Your task to perform on an android device: show emergency info Image 0: 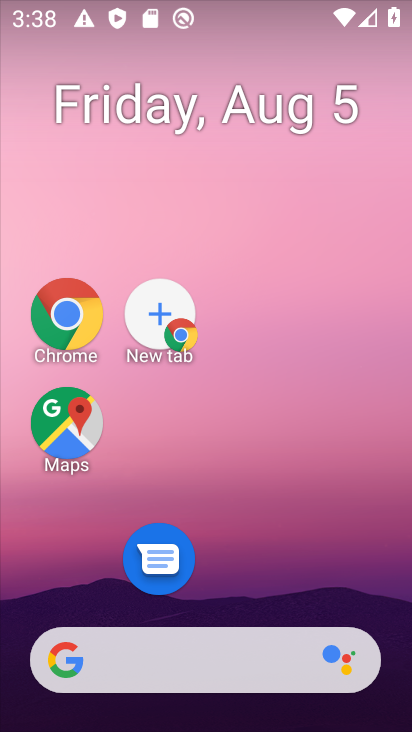
Step 0: drag from (268, 574) to (206, 117)
Your task to perform on an android device: show emergency info Image 1: 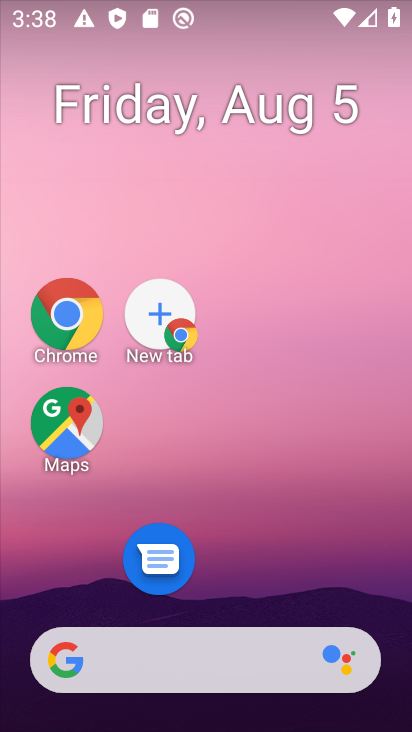
Step 1: drag from (259, 451) to (273, 204)
Your task to perform on an android device: show emergency info Image 2: 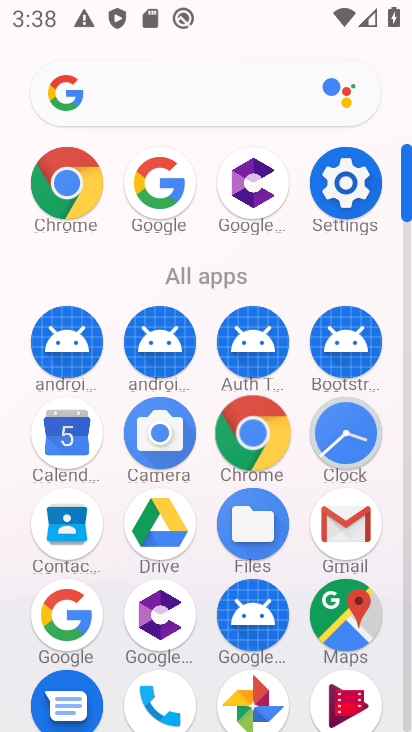
Step 2: drag from (261, 466) to (210, 96)
Your task to perform on an android device: show emergency info Image 3: 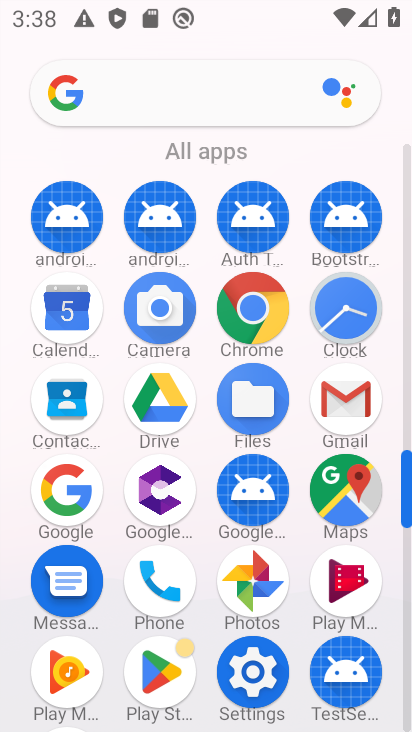
Step 3: click (247, 663)
Your task to perform on an android device: show emergency info Image 4: 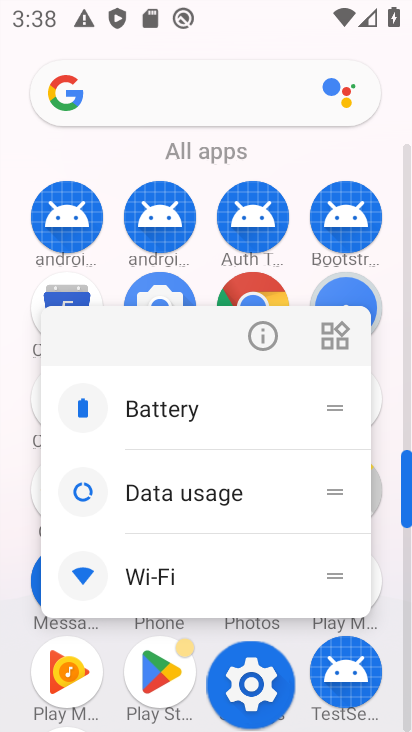
Step 4: click (246, 680)
Your task to perform on an android device: show emergency info Image 5: 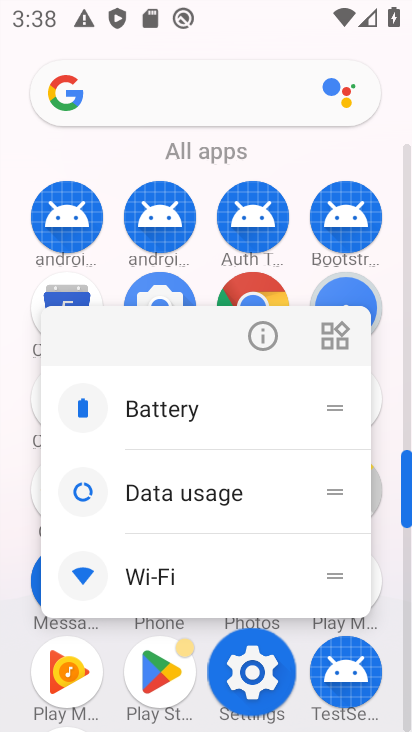
Step 5: click (248, 684)
Your task to perform on an android device: show emergency info Image 6: 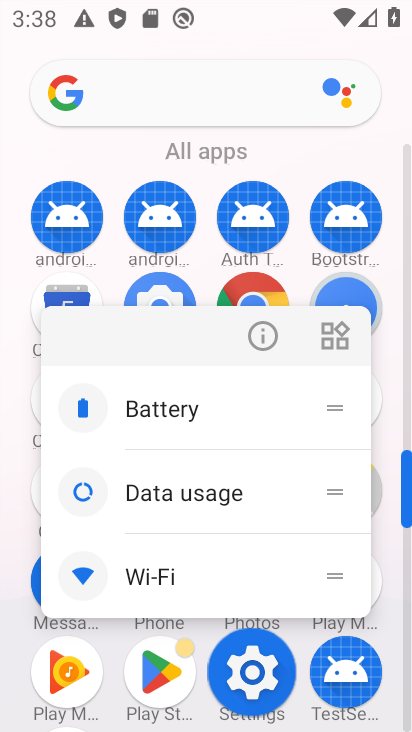
Step 6: click (248, 684)
Your task to perform on an android device: show emergency info Image 7: 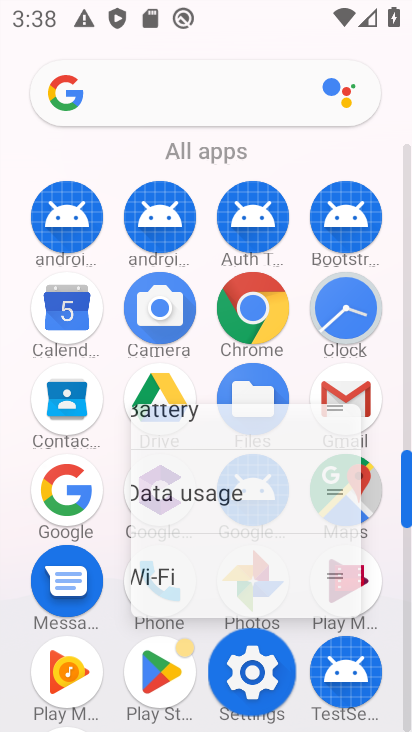
Step 7: click (244, 688)
Your task to perform on an android device: show emergency info Image 8: 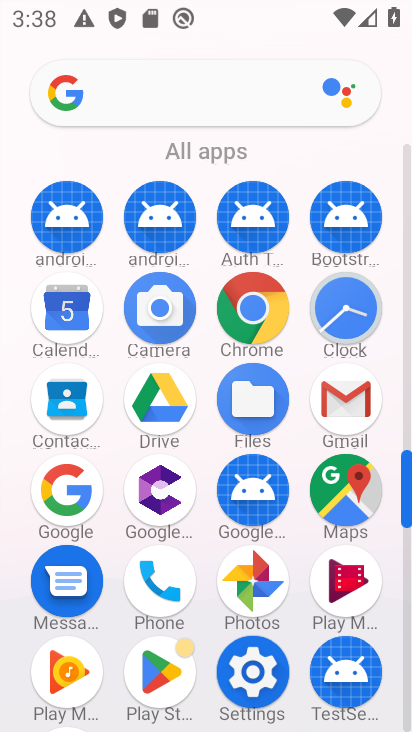
Step 8: click (246, 688)
Your task to perform on an android device: show emergency info Image 9: 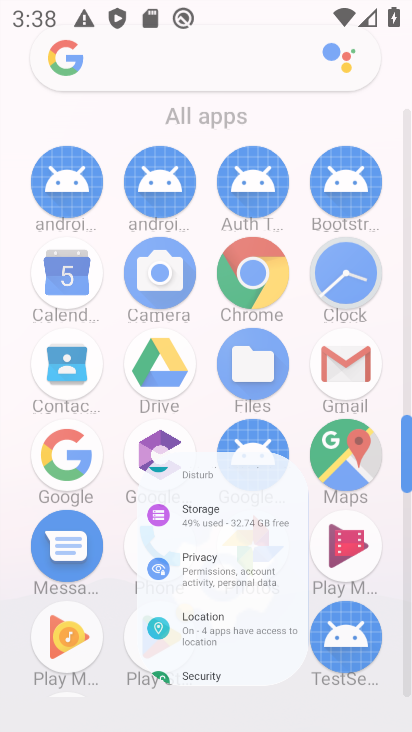
Step 9: click (252, 693)
Your task to perform on an android device: show emergency info Image 10: 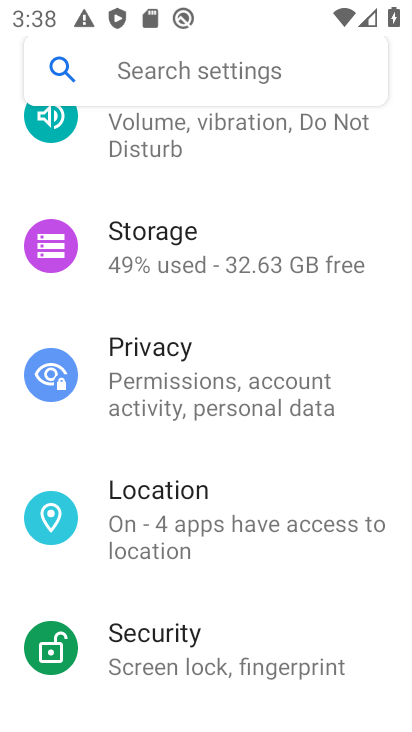
Step 10: drag from (163, 399) to (114, 216)
Your task to perform on an android device: show emergency info Image 11: 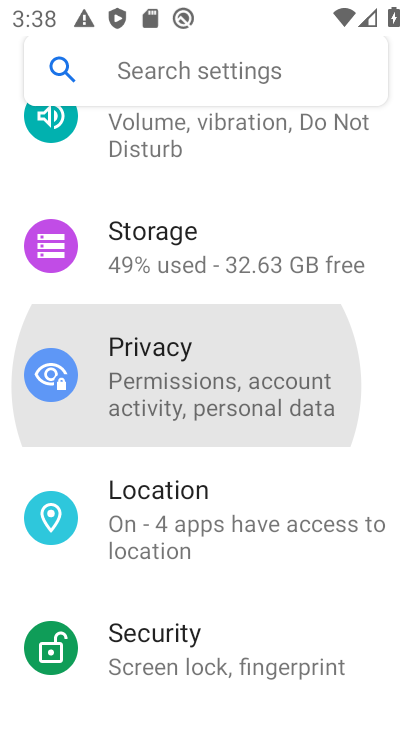
Step 11: drag from (203, 537) to (141, 278)
Your task to perform on an android device: show emergency info Image 12: 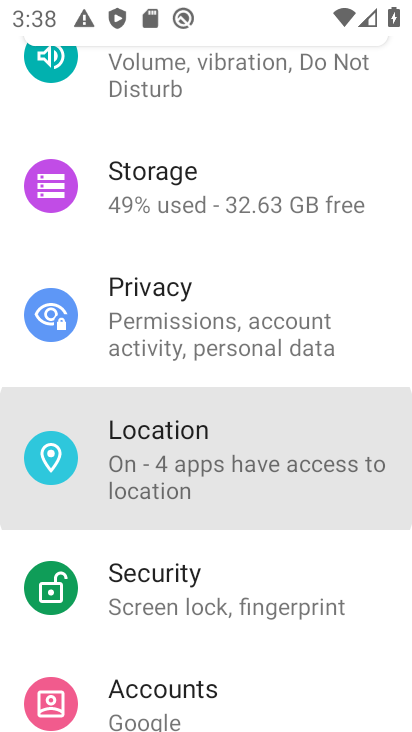
Step 12: drag from (205, 455) to (149, 191)
Your task to perform on an android device: show emergency info Image 13: 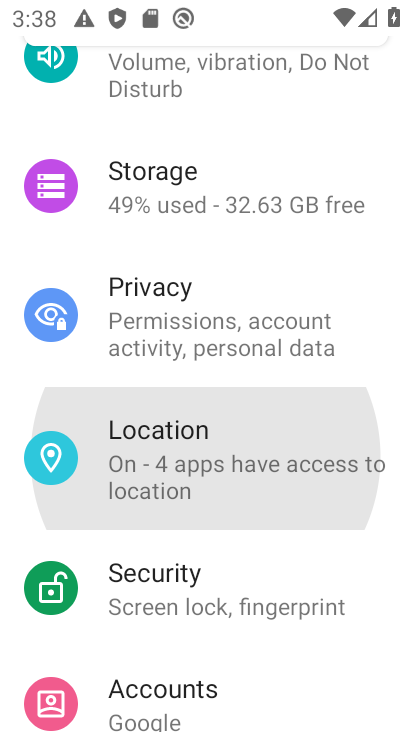
Step 13: drag from (148, 522) to (111, 180)
Your task to perform on an android device: show emergency info Image 14: 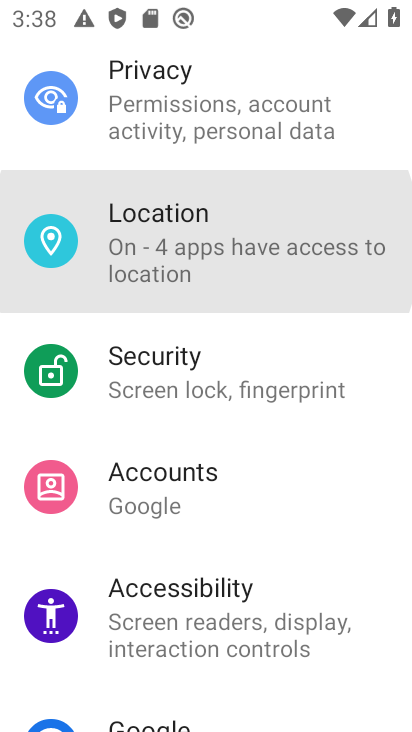
Step 14: drag from (92, 571) to (108, 268)
Your task to perform on an android device: show emergency info Image 15: 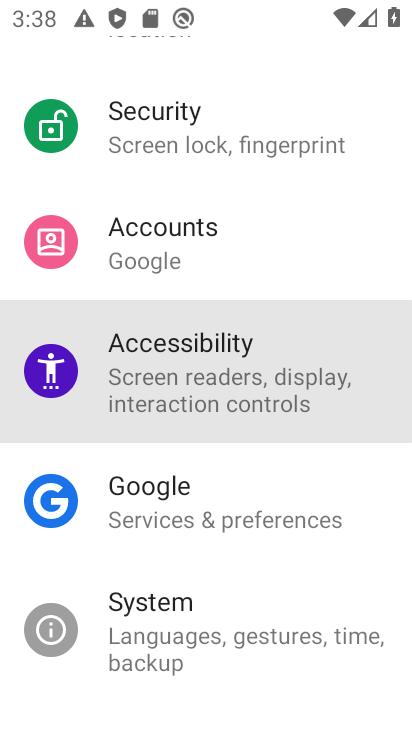
Step 15: drag from (213, 529) to (191, 189)
Your task to perform on an android device: show emergency info Image 16: 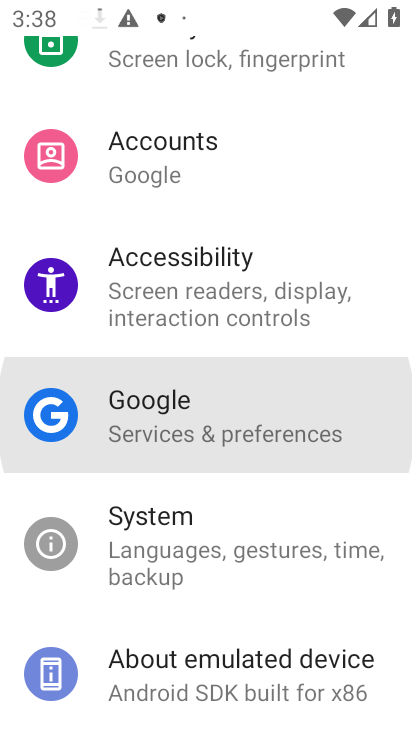
Step 16: drag from (282, 503) to (259, 214)
Your task to perform on an android device: show emergency info Image 17: 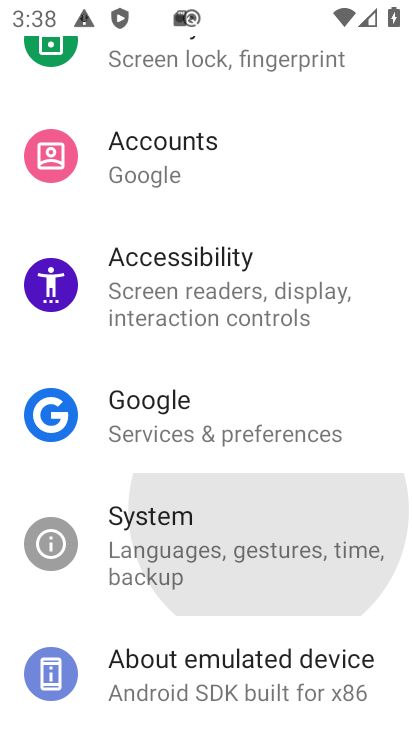
Step 17: drag from (255, 499) to (251, 213)
Your task to perform on an android device: show emergency info Image 18: 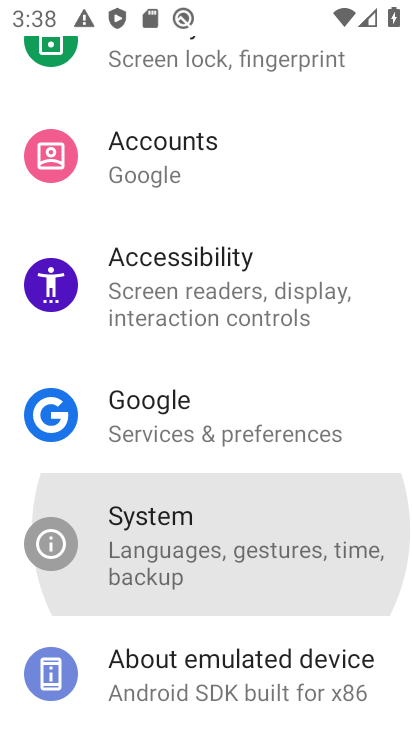
Step 18: drag from (223, 535) to (212, 231)
Your task to perform on an android device: show emergency info Image 19: 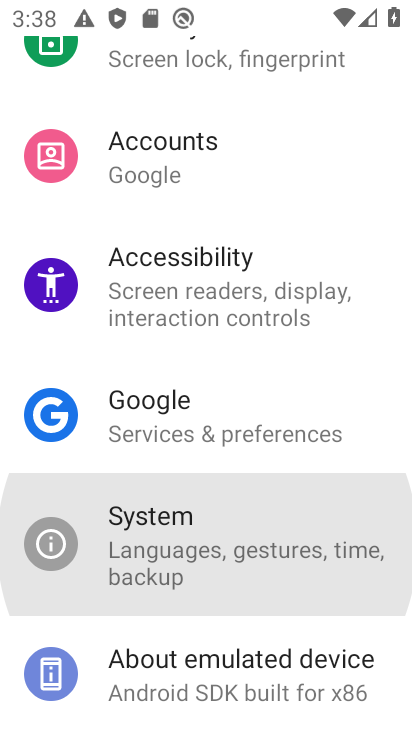
Step 19: drag from (223, 479) to (231, 253)
Your task to perform on an android device: show emergency info Image 20: 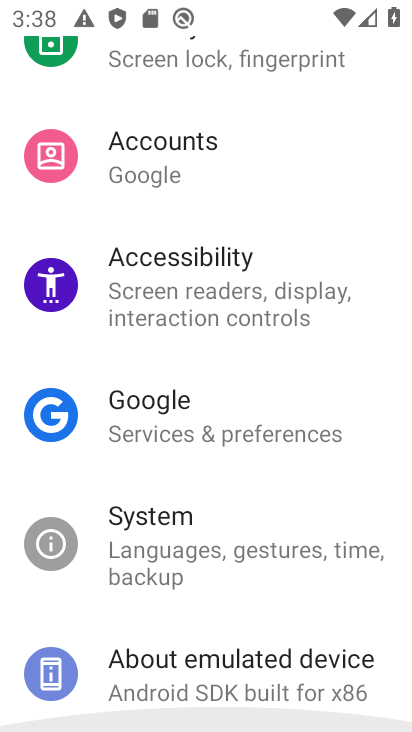
Step 20: drag from (257, 572) to (224, 246)
Your task to perform on an android device: show emergency info Image 21: 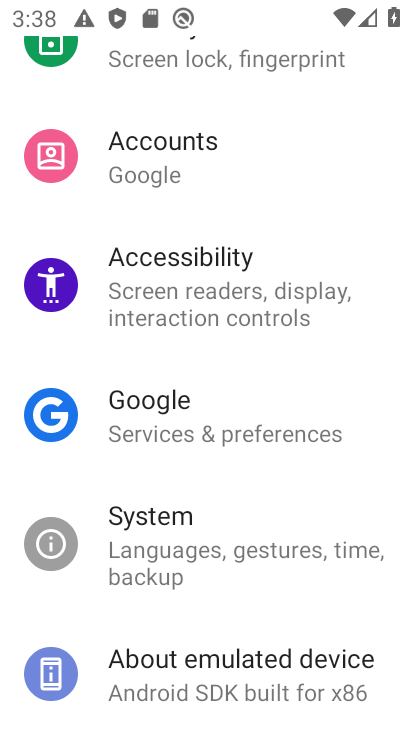
Step 21: click (223, 674)
Your task to perform on an android device: show emergency info Image 22: 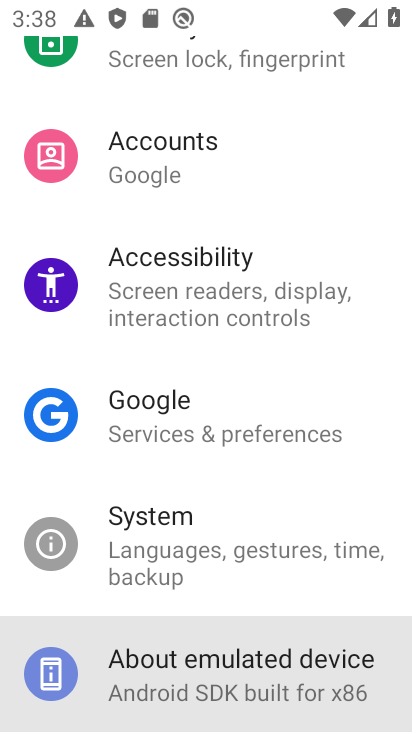
Step 22: click (224, 674)
Your task to perform on an android device: show emergency info Image 23: 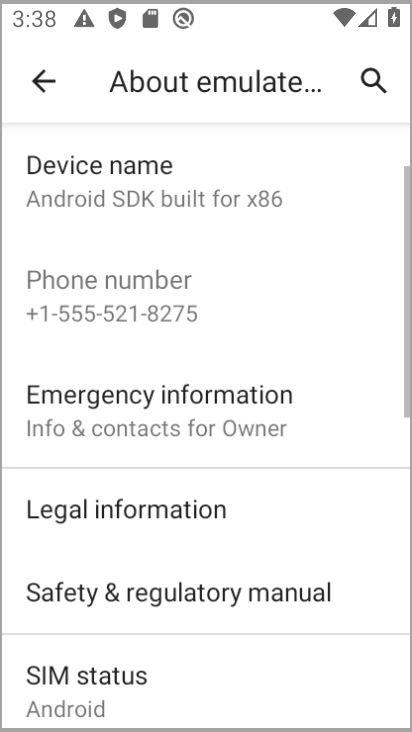
Step 23: click (224, 674)
Your task to perform on an android device: show emergency info Image 24: 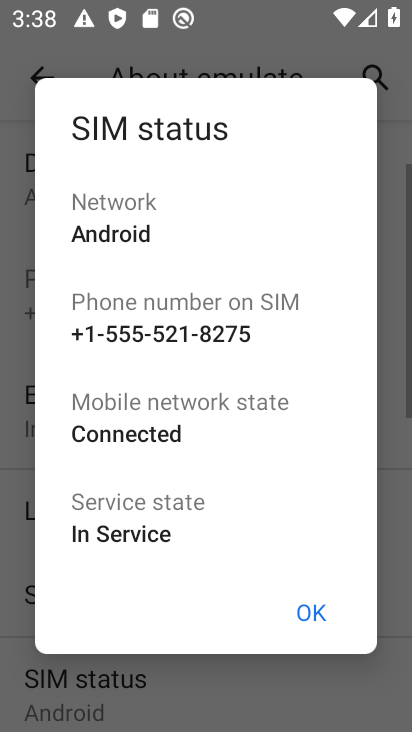
Step 24: click (16, 251)
Your task to perform on an android device: show emergency info Image 25: 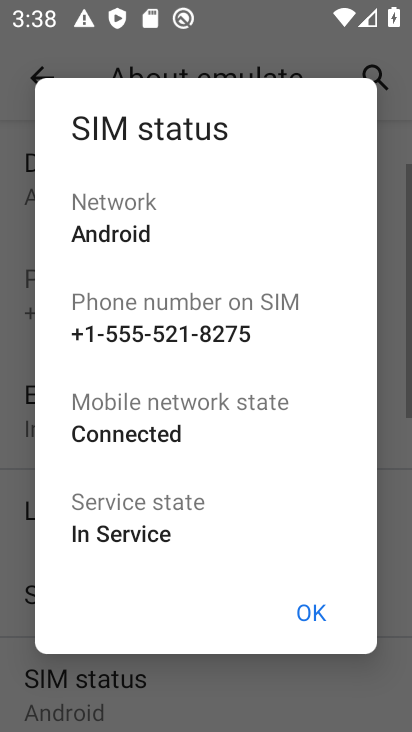
Step 25: click (310, 612)
Your task to perform on an android device: show emergency info Image 26: 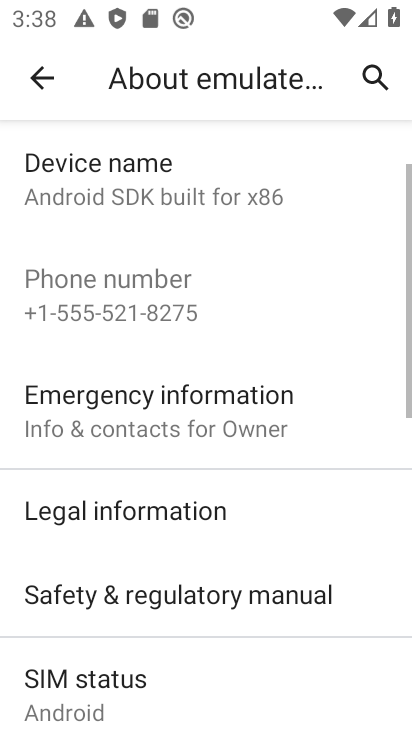
Step 26: click (142, 420)
Your task to perform on an android device: show emergency info Image 27: 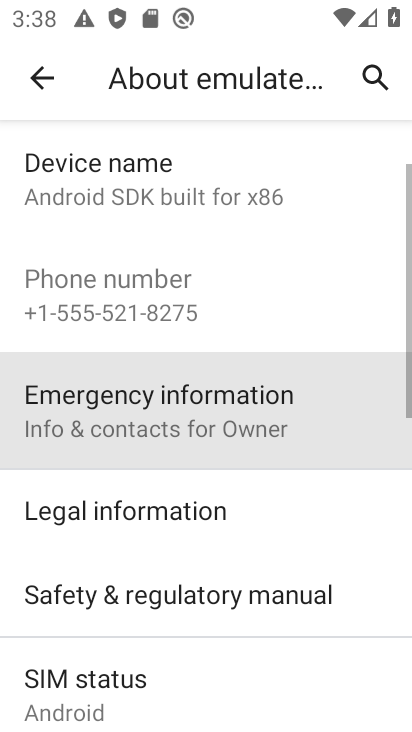
Step 27: click (145, 418)
Your task to perform on an android device: show emergency info Image 28: 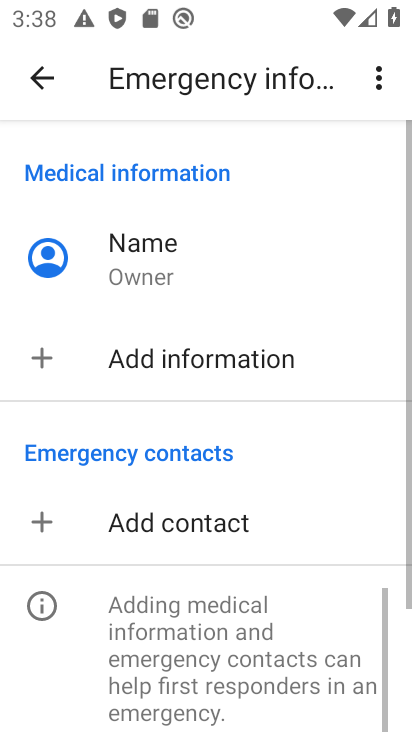
Step 28: task complete